Your task to perform on an android device: Open calendar and show me the third week of next month Image 0: 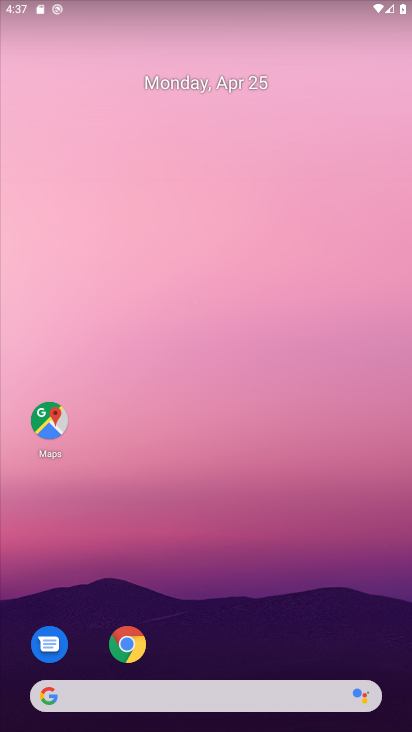
Step 0: drag from (262, 604) to (255, 6)
Your task to perform on an android device: Open calendar and show me the third week of next month Image 1: 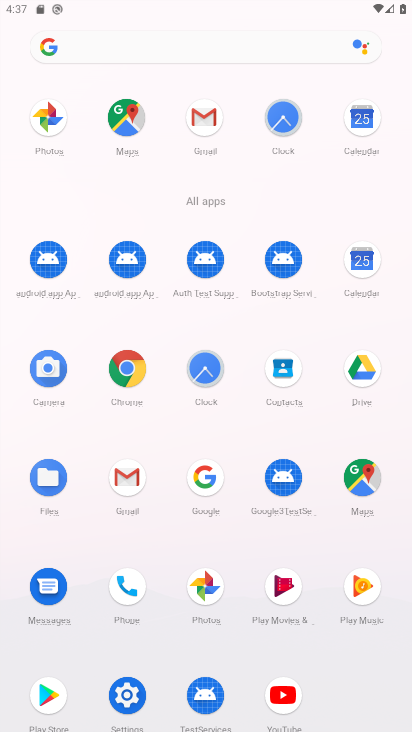
Step 1: click (367, 262)
Your task to perform on an android device: Open calendar and show me the third week of next month Image 2: 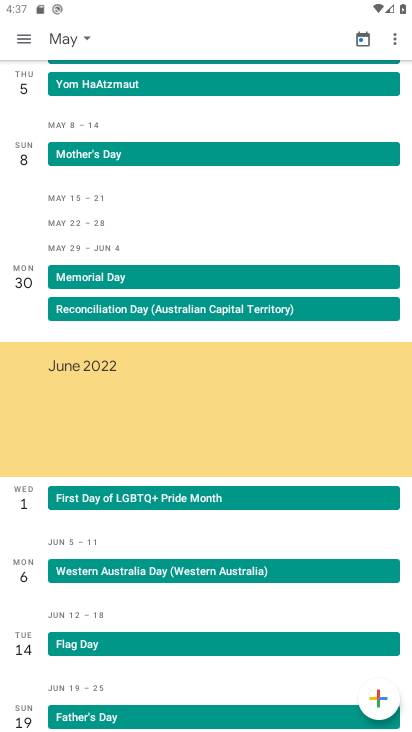
Step 2: click (24, 37)
Your task to perform on an android device: Open calendar and show me the third week of next month Image 3: 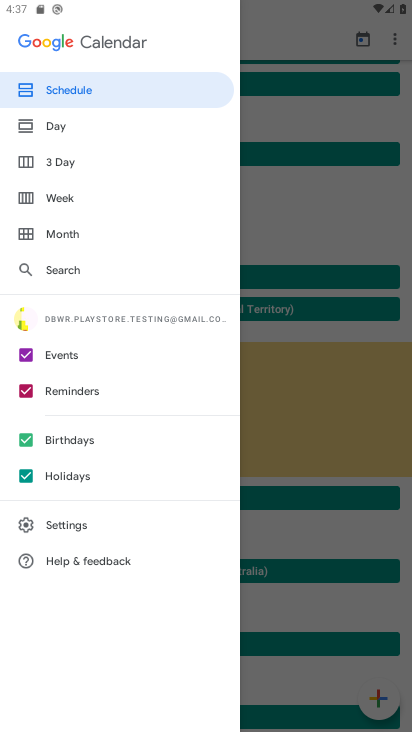
Step 3: click (66, 198)
Your task to perform on an android device: Open calendar and show me the third week of next month Image 4: 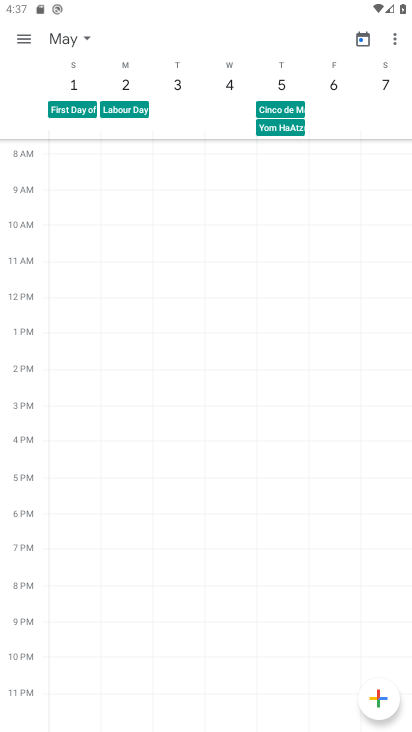
Step 4: click (81, 33)
Your task to perform on an android device: Open calendar and show me the third week of next month Image 5: 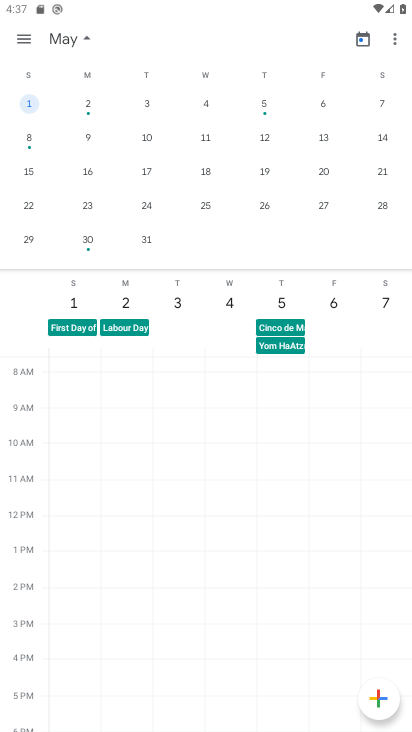
Step 5: click (35, 161)
Your task to perform on an android device: Open calendar and show me the third week of next month Image 6: 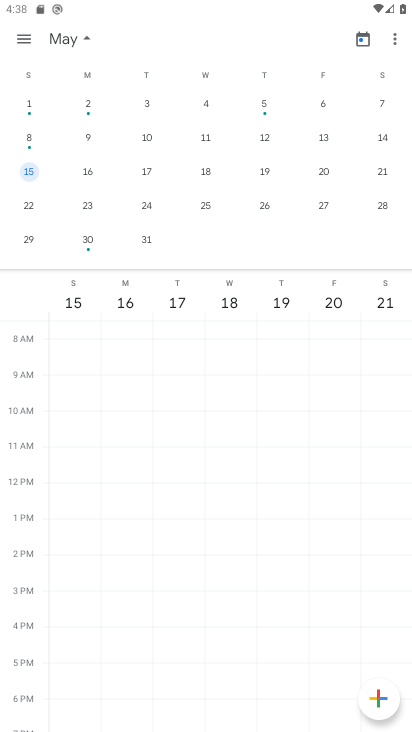
Step 6: task complete